Your task to perform on an android device: search for starred emails in the gmail app Image 0: 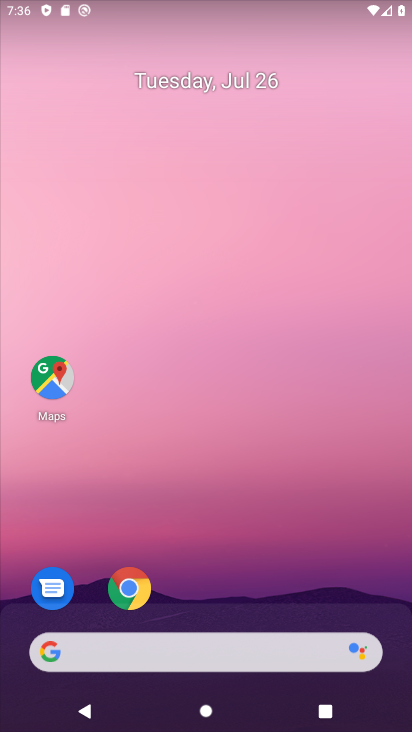
Step 0: drag from (282, 453) to (247, 44)
Your task to perform on an android device: search for starred emails in the gmail app Image 1: 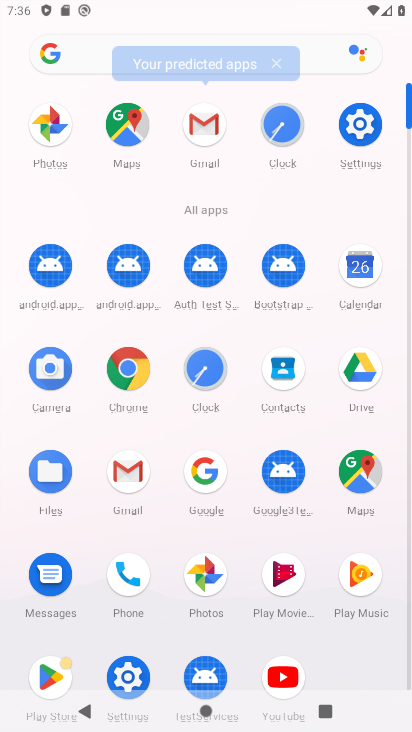
Step 1: click (201, 125)
Your task to perform on an android device: search for starred emails in the gmail app Image 2: 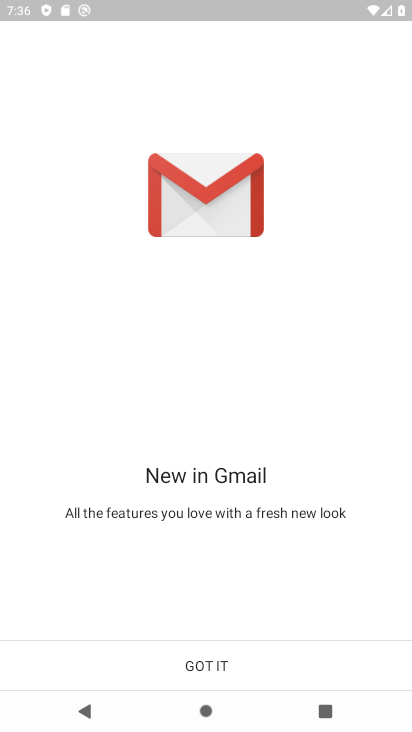
Step 2: click (226, 651)
Your task to perform on an android device: search for starred emails in the gmail app Image 3: 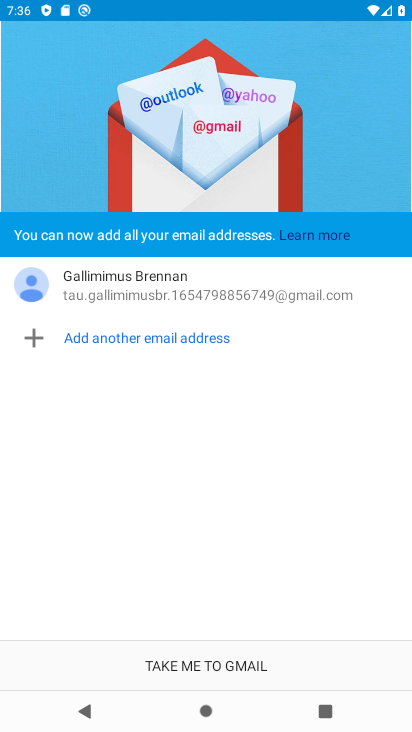
Step 3: click (226, 651)
Your task to perform on an android device: search for starred emails in the gmail app Image 4: 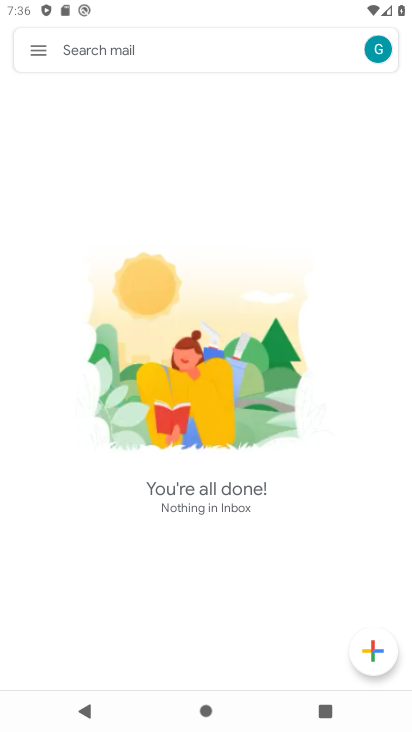
Step 4: click (42, 42)
Your task to perform on an android device: search for starred emails in the gmail app Image 5: 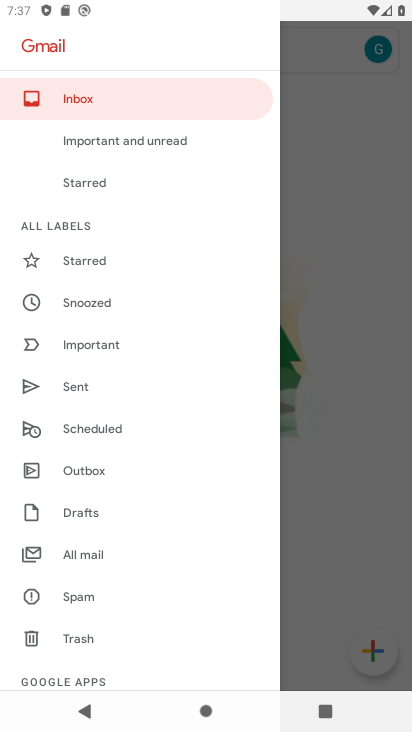
Step 5: click (84, 270)
Your task to perform on an android device: search for starred emails in the gmail app Image 6: 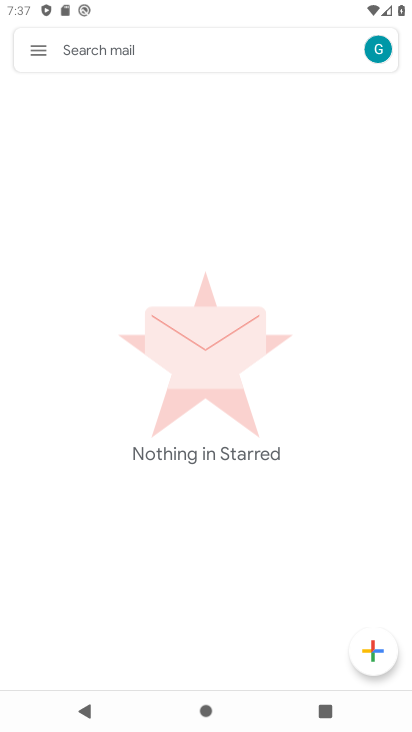
Step 6: task complete